Your task to perform on an android device: turn off airplane mode Image 0: 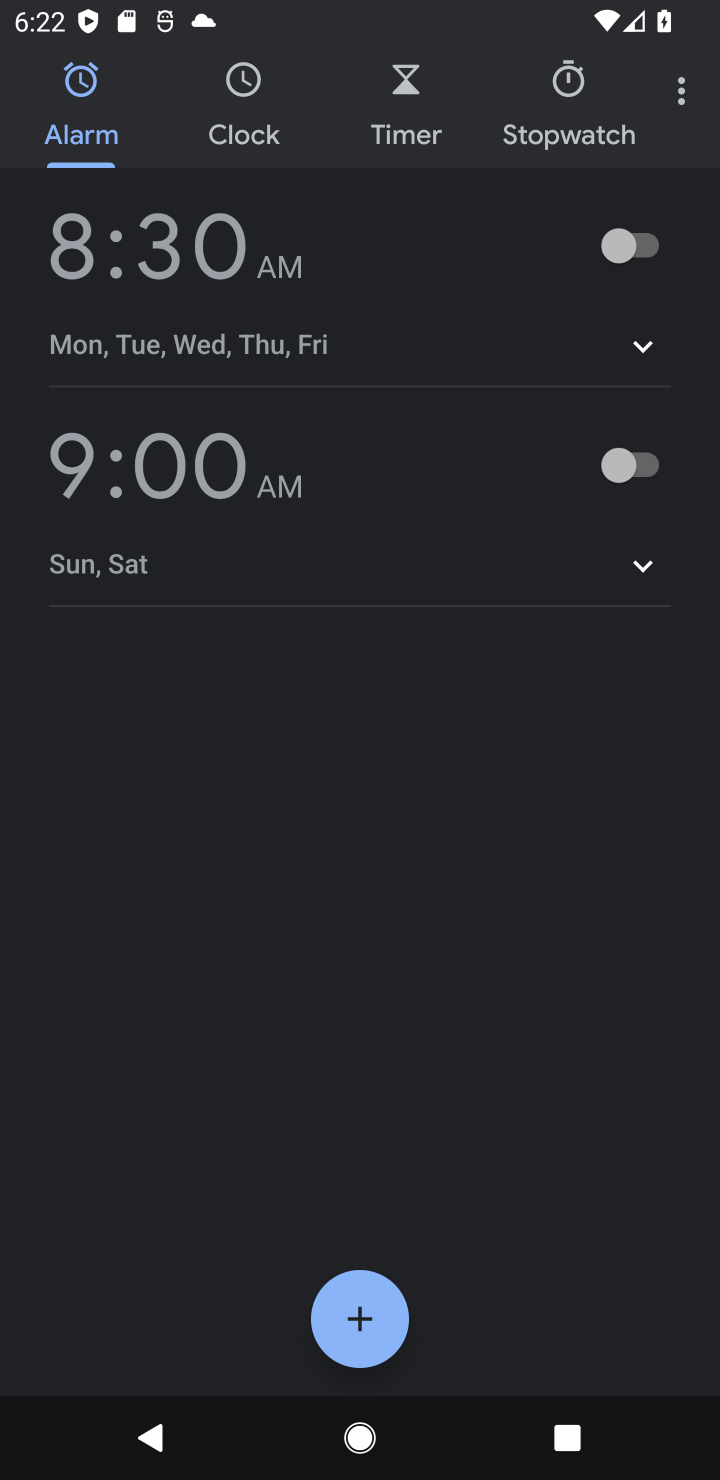
Step 0: press home button
Your task to perform on an android device: turn off airplane mode Image 1: 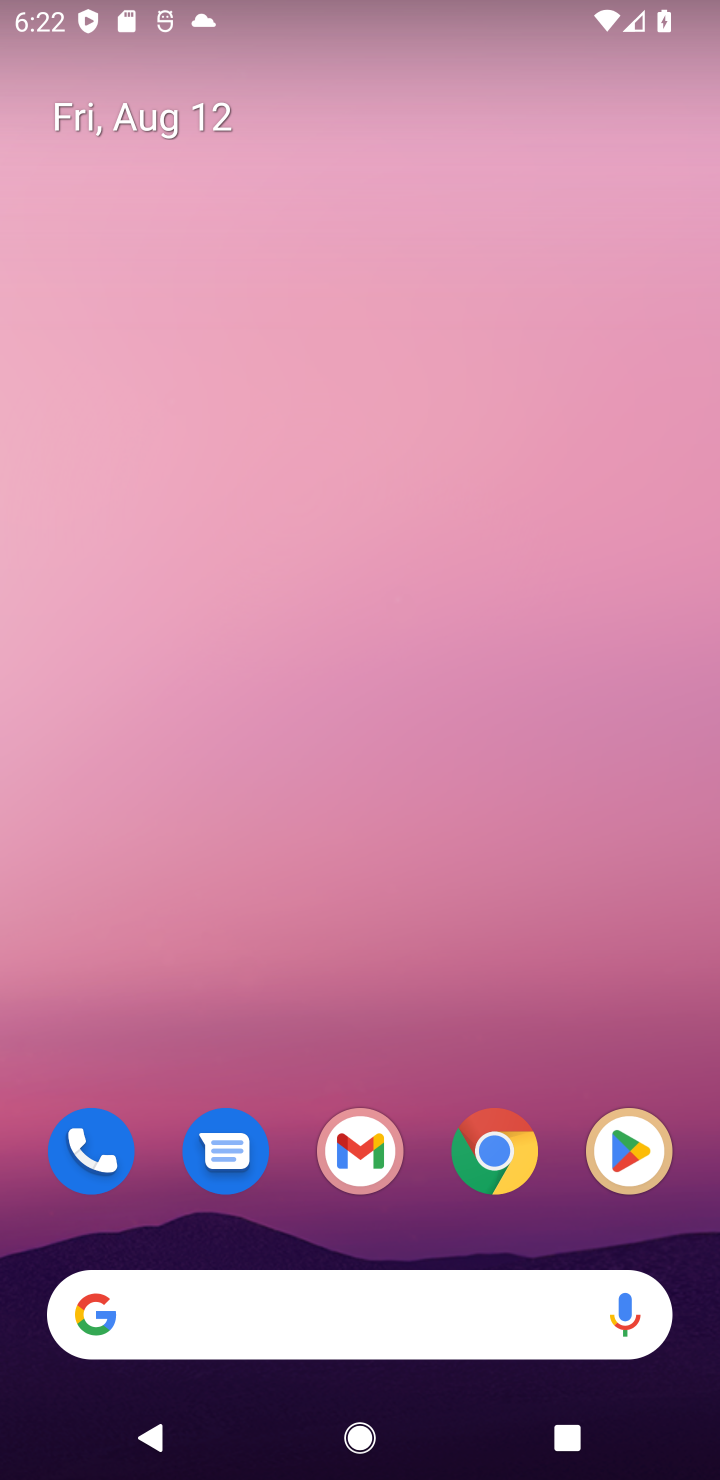
Step 1: drag from (271, 738) to (292, 202)
Your task to perform on an android device: turn off airplane mode Image 2: 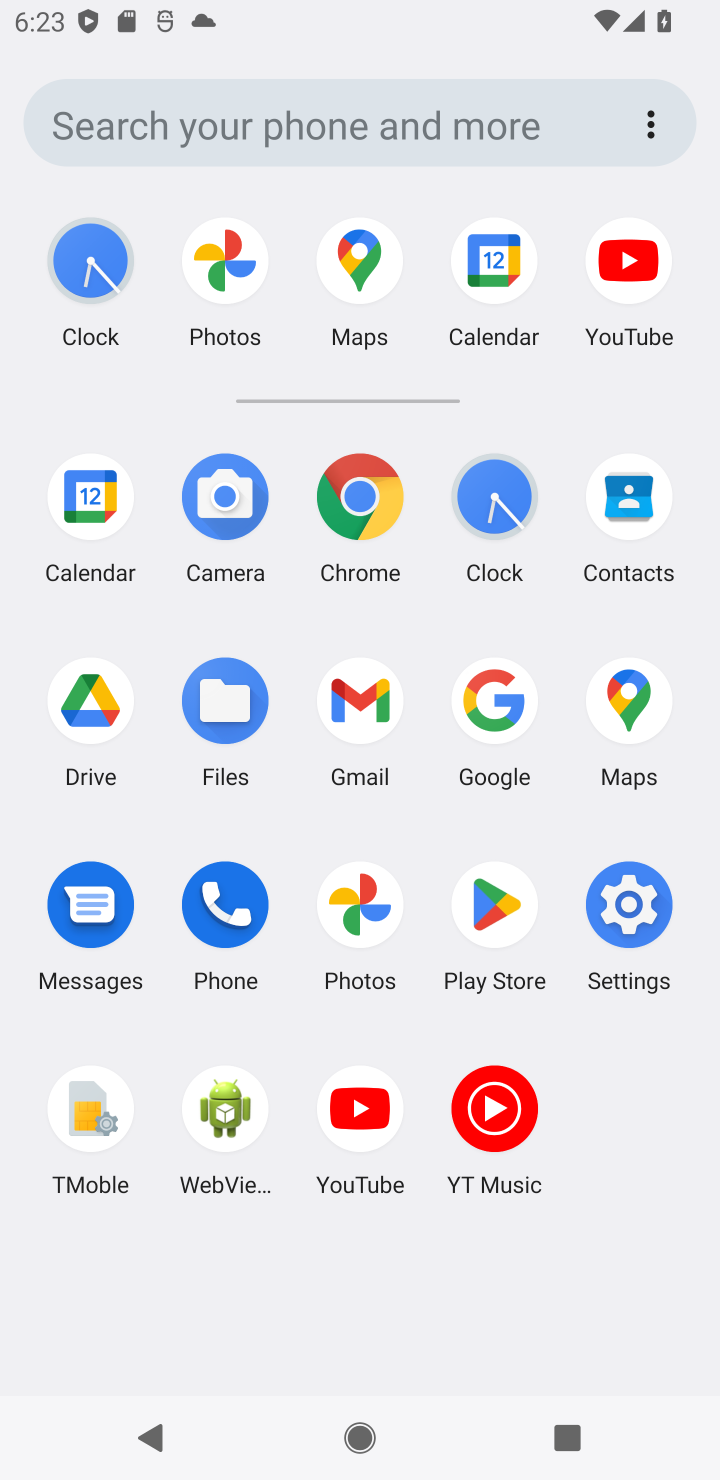
Step 2: click (635, 892)
Your task to perform on an android device: turn off airplane mode Image 3: 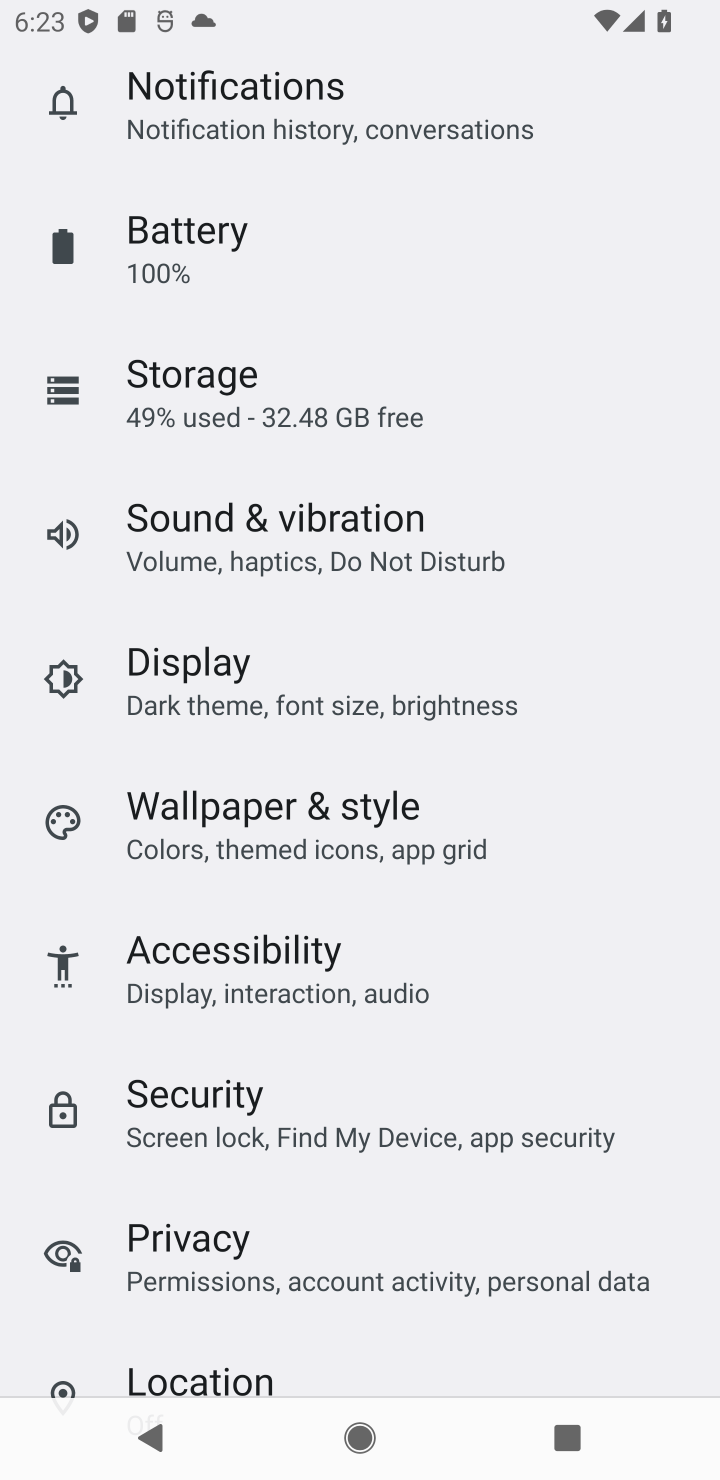
Step 3: drag from (391, 261) to (314, 1171)
Your task to perform on an android device: turn off airplane mode Image 4: 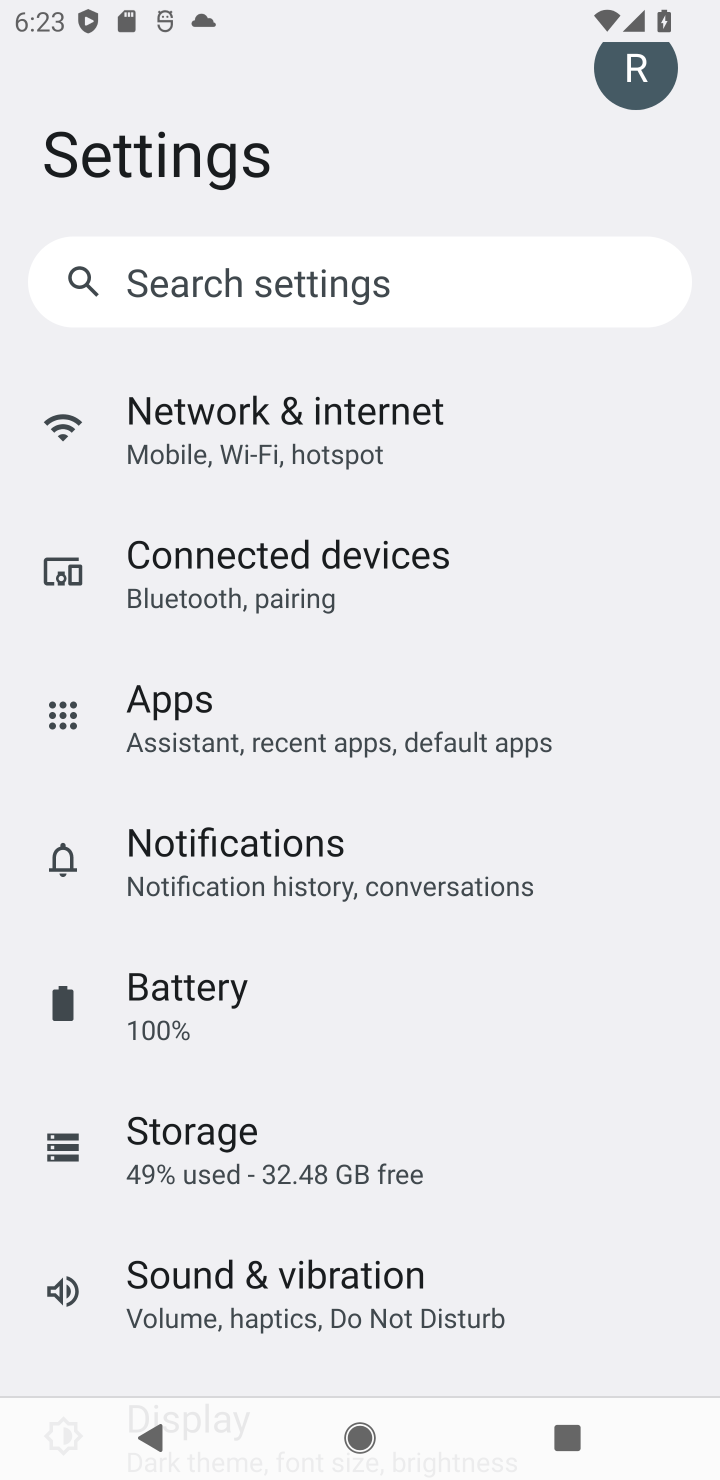
Step 4: click (371, 460)
Your task to perform on an android device: turn off airplane mode Image 5: 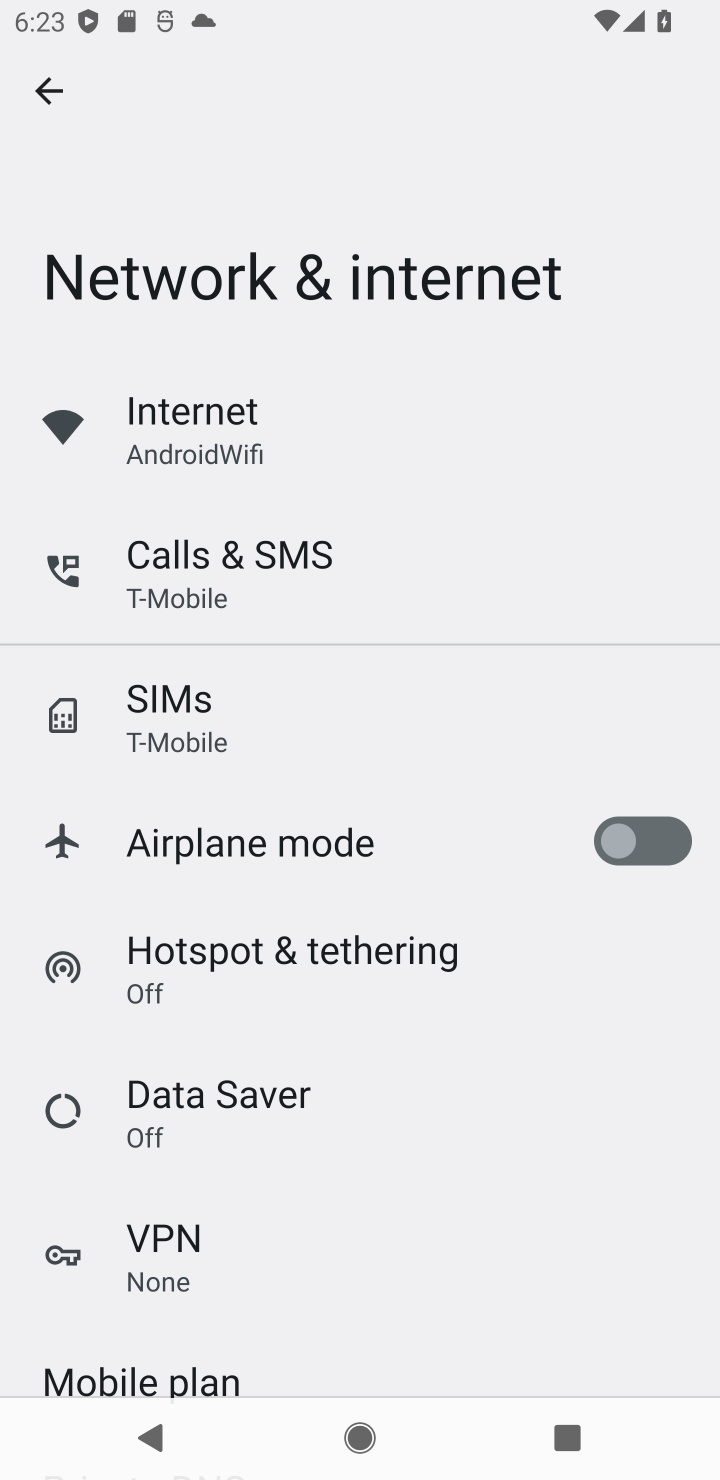
Step 5: task complete